Your task to perform on an android device: toggle pop-ups in chrome Image 0: 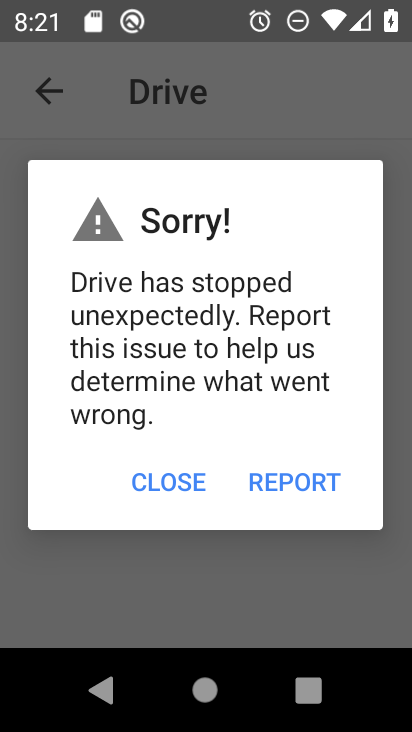
Step 0: press home button
Your task to perform on an android device: toggle pop-ups in chrome Image 1: 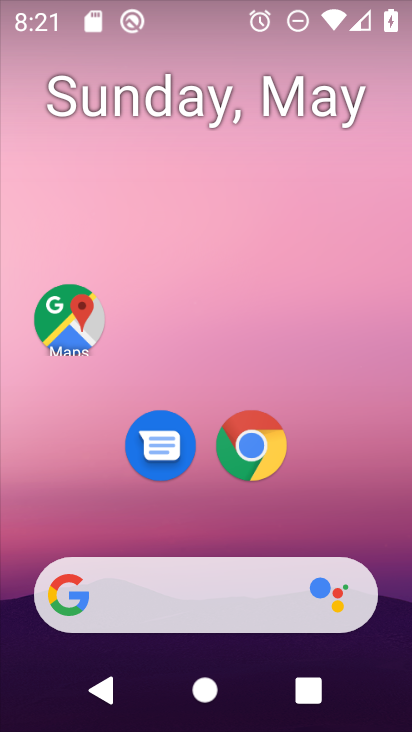
Step 1: drag from (307, 629) to (316, 198)
Your task to perform on an android device: toggle pop-ups in chrome Image 2: 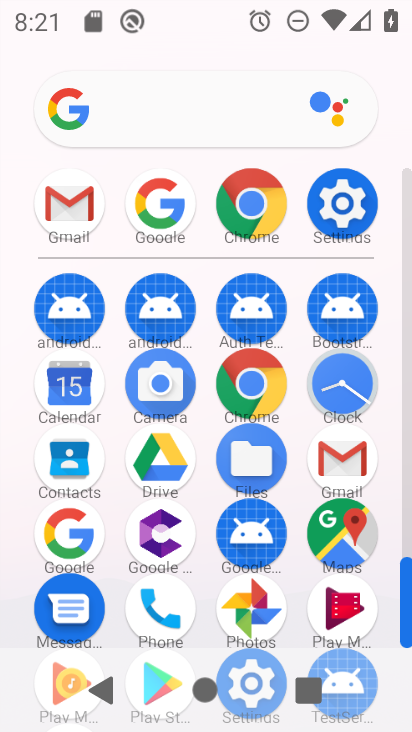
Step 2: click (259, 222)
Your task to perform on an android device: toggle pop-ups in chrome Image 3: 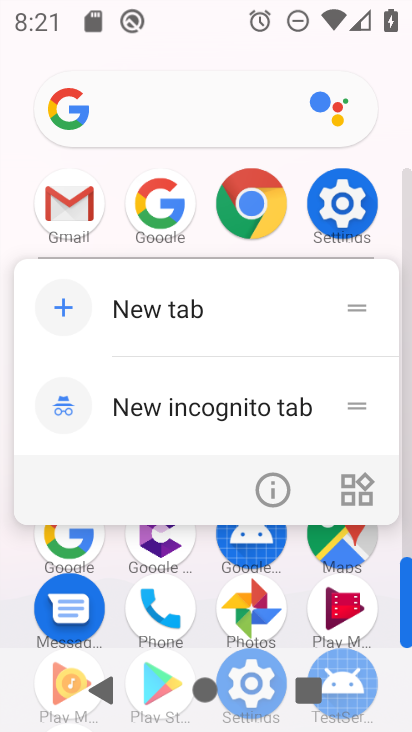
Step 3: click (270, 194)
Your task to perform on an android device: toggle pop-ups in chrome Image 4: 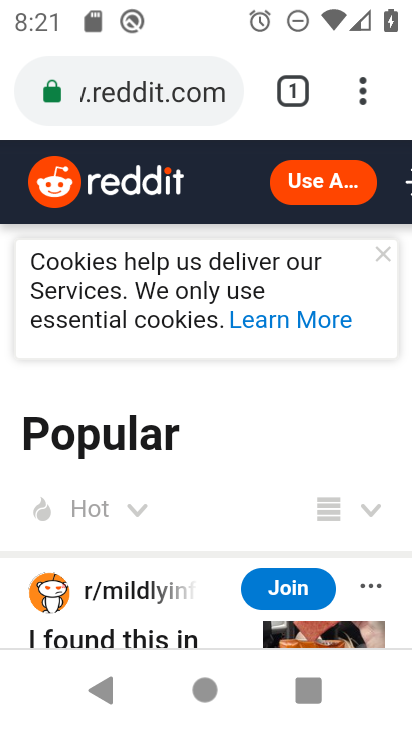
Step 4: click (358, 94)
Your task to perform on an android device: toggle pop-ups in chrome Image 5: 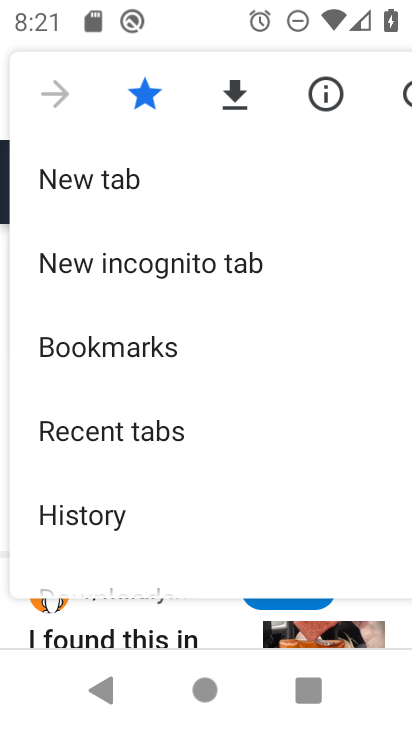
Step 5: drag from (175, 488) to (223, 244)
Your task to perform on an android device: toggle pop-ups in chrome Image 6: 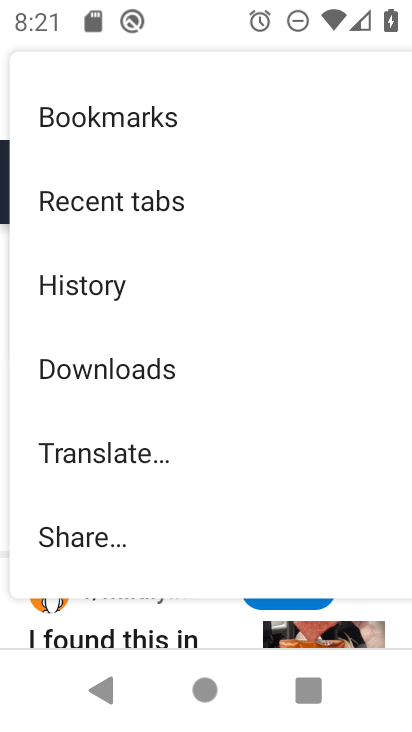
Step 6: drag from (227, 509) to (291, 247)
Your task to perform on an android device: toggle pop-ups in chrome Image 7: 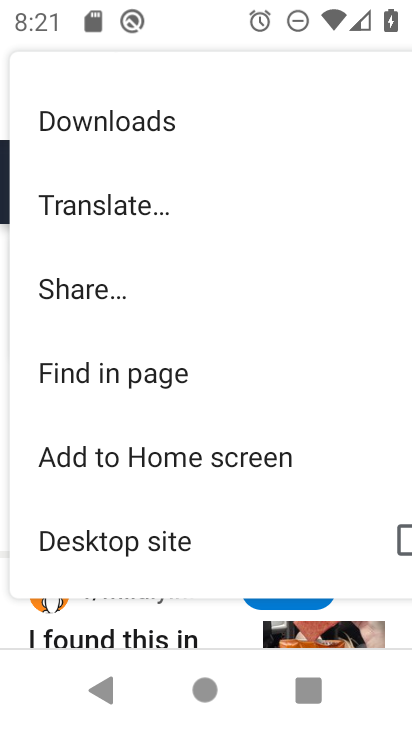
Step 7: drag from (232, 529) to (288, 267)
Your task to perform on an android device: toggle pop-ups in chrome Image 8: 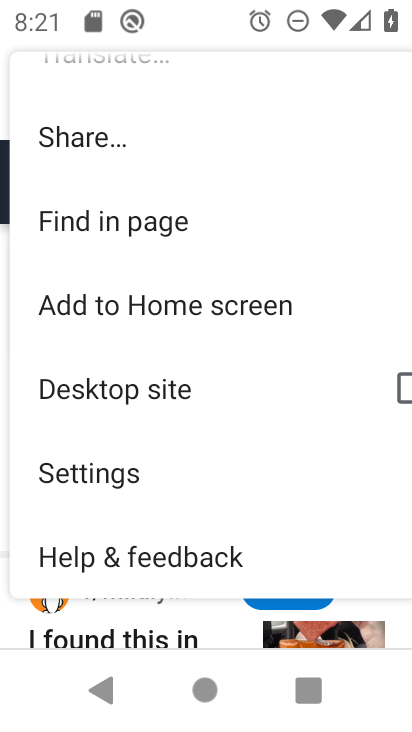
Step 8: click (137, 475)
Your task to perform on an android device: toggle pop-ups in chrome Image 9: 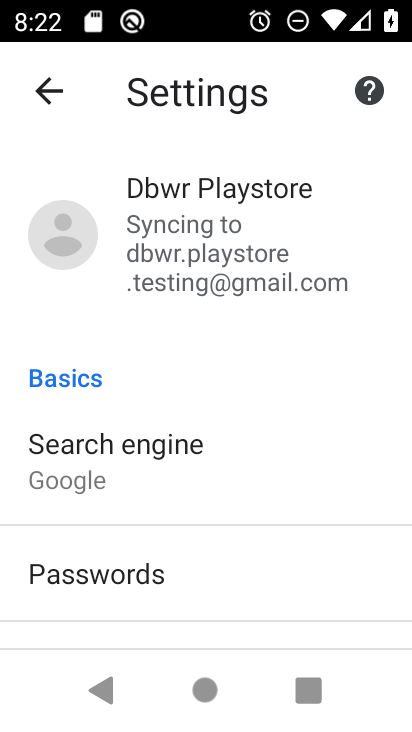
Step 9: drag from (356, 563) to (359, 254)
Your task to perform on an android device: toggle pop-ups in chrome Image 10: 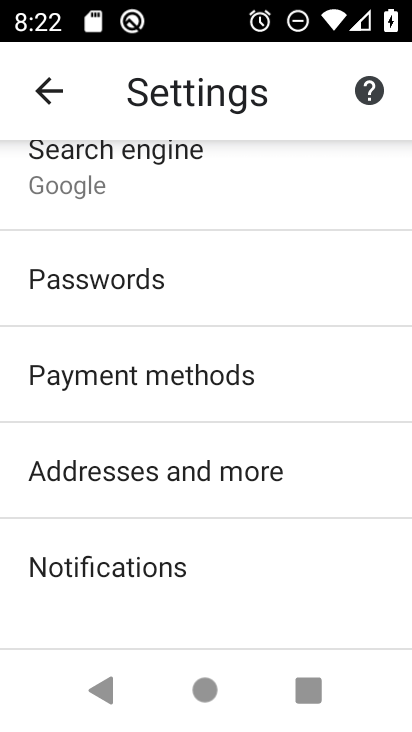
Step 10: drag from (218, 499) to (223, 388)
Your task to perform on an android device: toggle pop-ups in chrome Image 11: 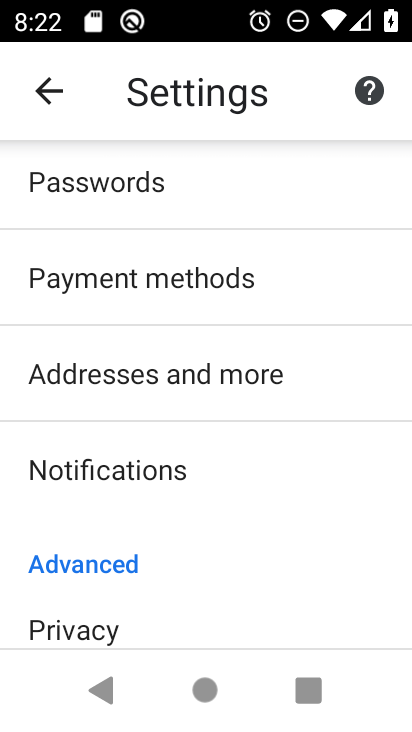
Step 11: drag from (277, 581) to (327, 388)
Your task to perform on an android device: toggle pop-ups in chrome Image 12: 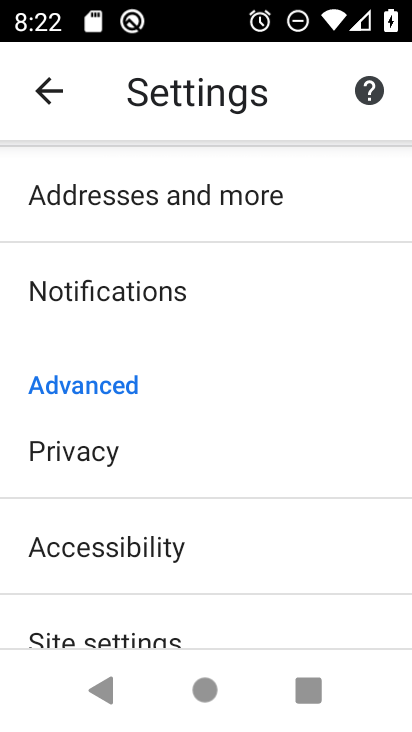
Step 12: drag from (243, 626) to (258, 432)
Your task to perform on an android device: toggle pop-ups in chrome Image 13: 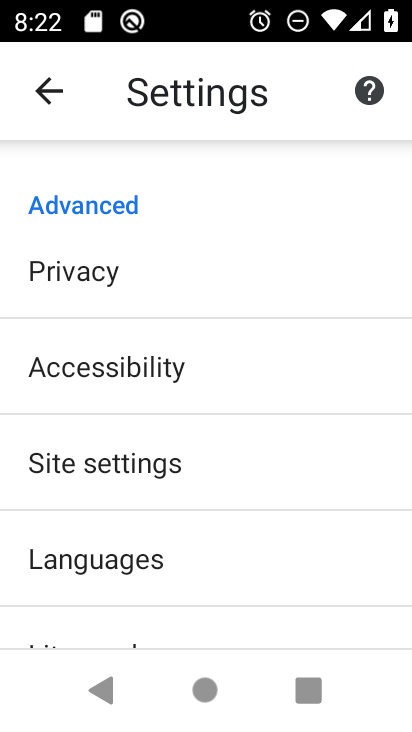
Step 13: click (292, 475)
Your task to perform on an android device: toggle pop-ups in chrome Image 14: 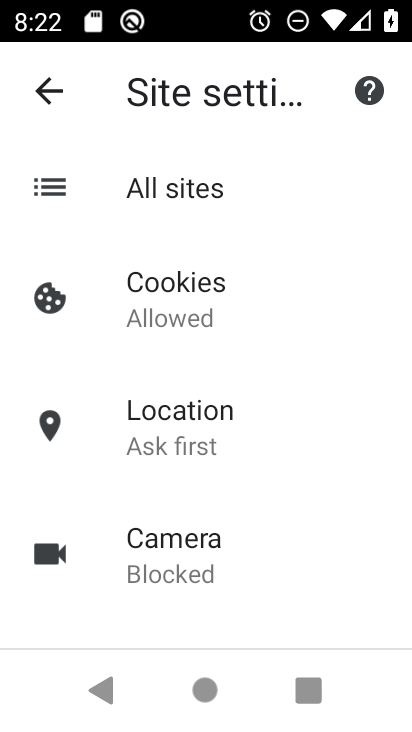
Step 14: drag from (169, 509) to (235, 175)
Your task to perform on an android device: toggle pop-ups in chrome Image 15: 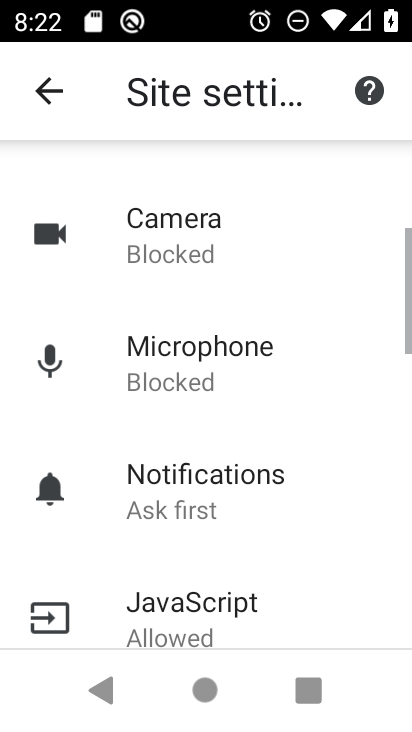
Step 15: drag from (222, 591) to (237, 405)
Your task to perform on an android device: toggle pop-ups in chrome Image 16: 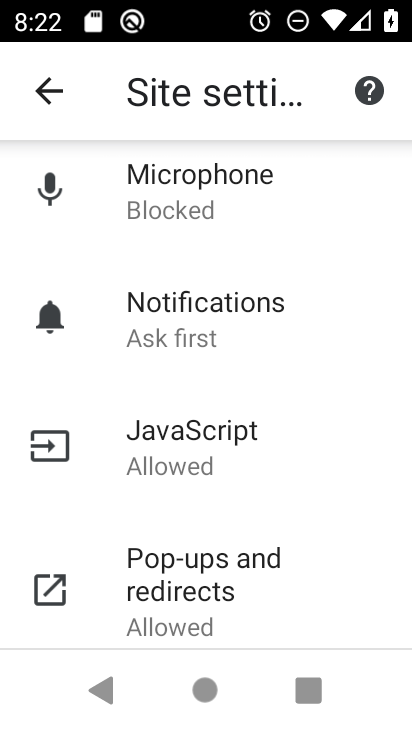
Step 16: click (216, 569)
Your task to perform on an android device: toggle pop-ups in chrome Image 17: 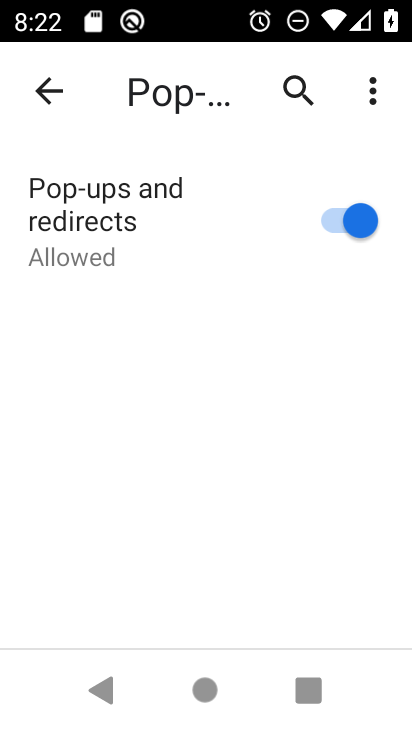
Step 17: click (349, 220)
Your task to perform on an android device: toggle pop-ups in chrome Image 18: 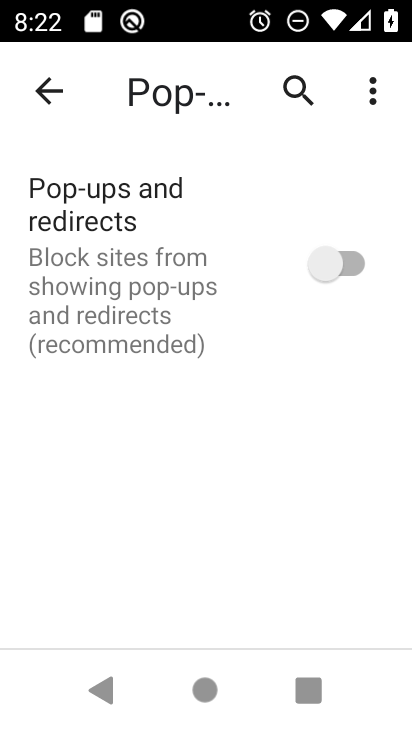
Step 18: task complete